Your task to perform on an android device: check data usage Image 0: 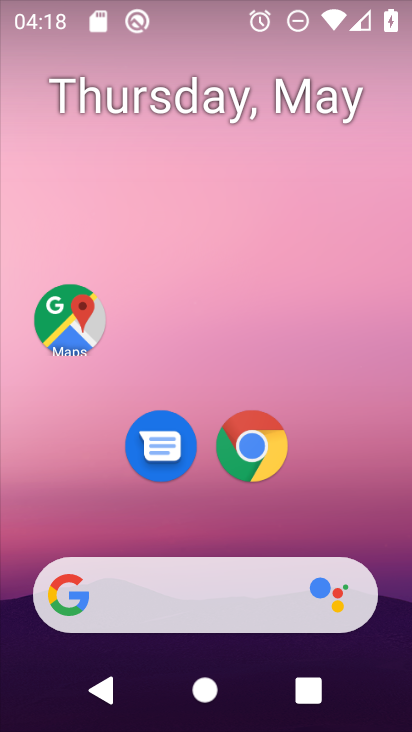
Step 0: drag from (368, 548) to (408, 634)
Your task to perform on an android device: check data usage Image 1: 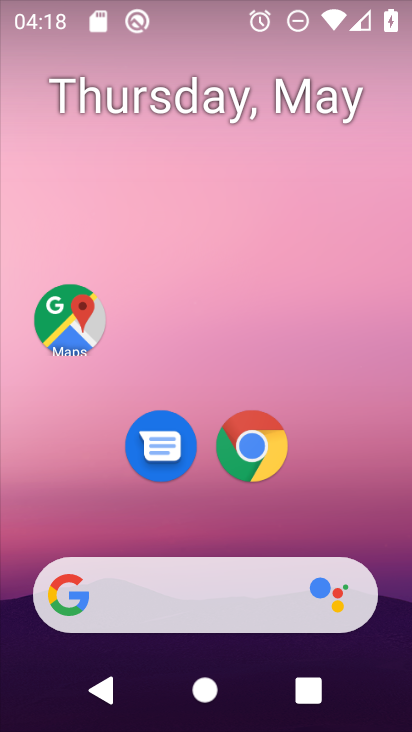
Step 1: drag from (348, 547) to (385, 35)
Your task to perform on an android device: check data usage Image 2: 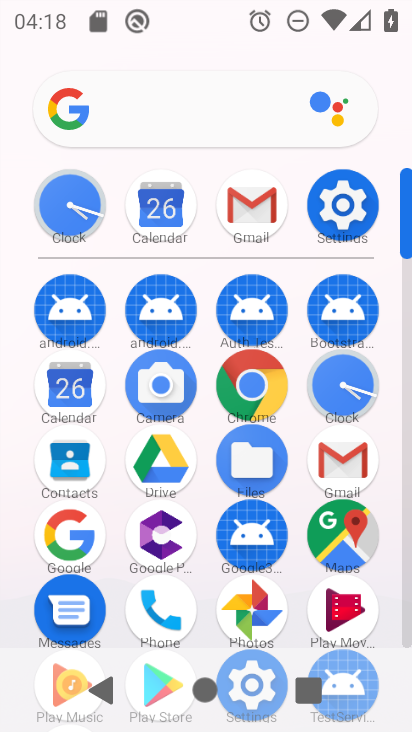
Step 2: click (348, 208)
Your task to perform on an android device: check data usage Image 3: 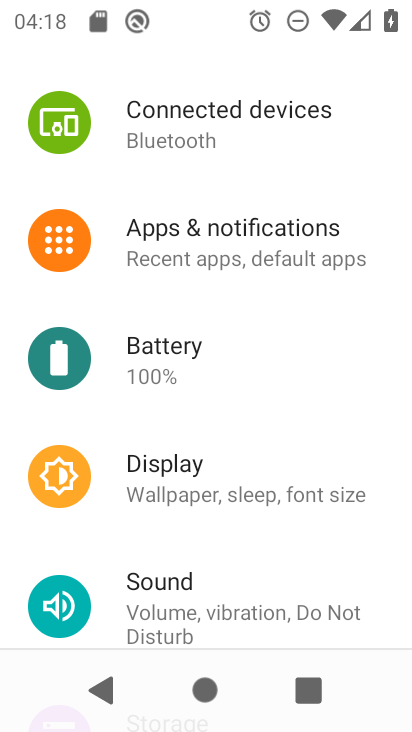
Step 3: drag from (278, 188) to (280, 597)
Your task to perform on an android device: check data usage Image 4: 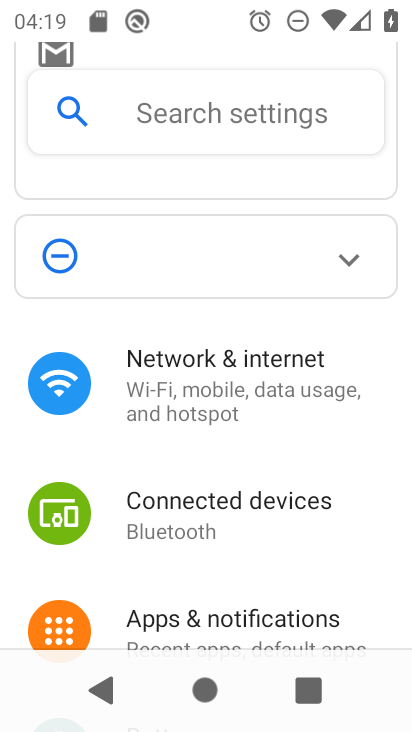
Step 4: click (193, 396)
Your task to perform on an android device: check data usage Image 5: 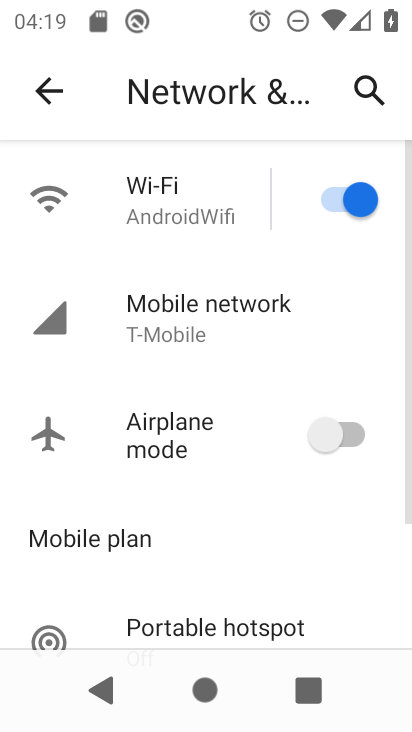
Step 5: click (175, 329)
Your task to perform on an android device: check data usage Image 6: 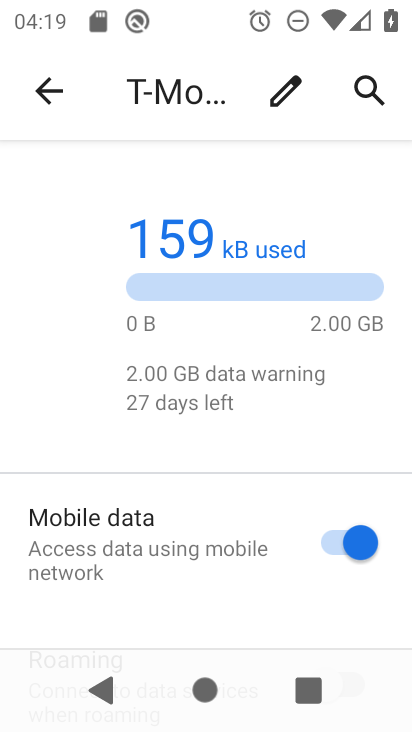
Step 6: drag from (199, 490) to (198, 141)
Your task to perform on an android device: check data usage Image 7: 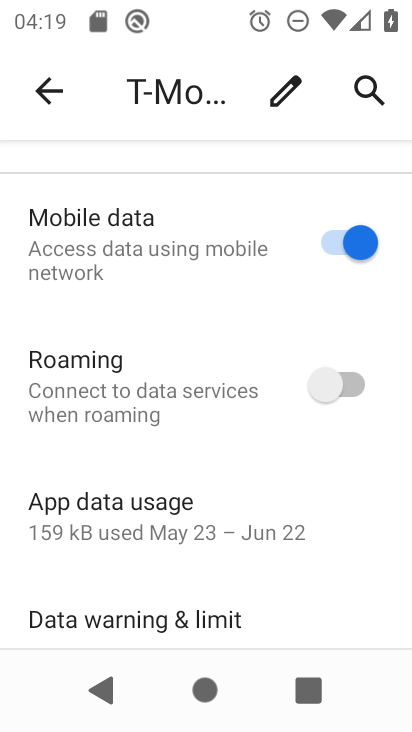
Step 7: click (149, 514)
Your task to perform on an android device: check data usage Image 8: 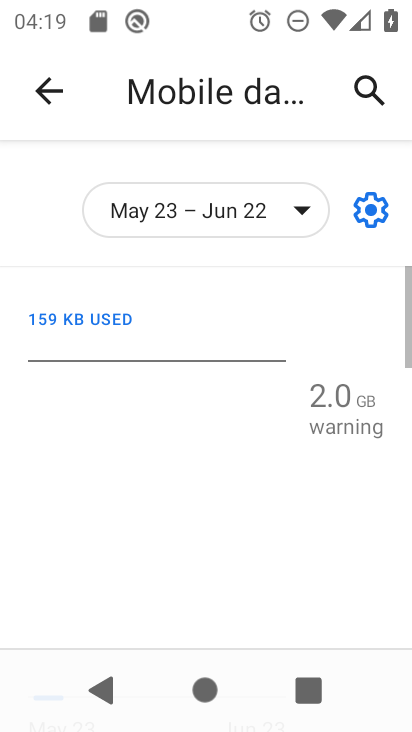
Step 8: task complete